Your task to perform on an android device: change the upload size in google photos Image 0: 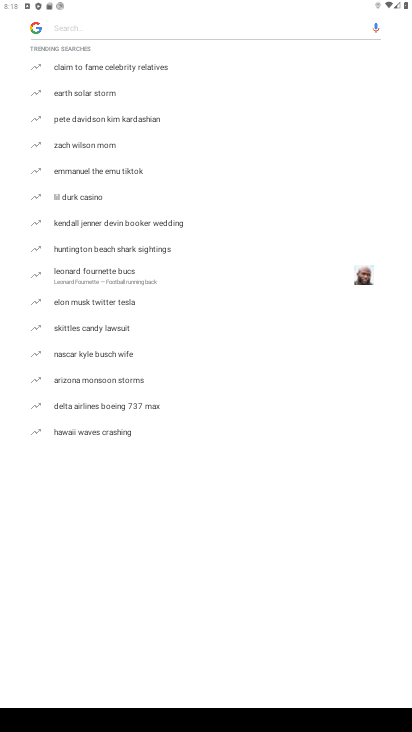
Step 0: press home button
Your task to perform on an android device: change the upload size in google photos Image 1: 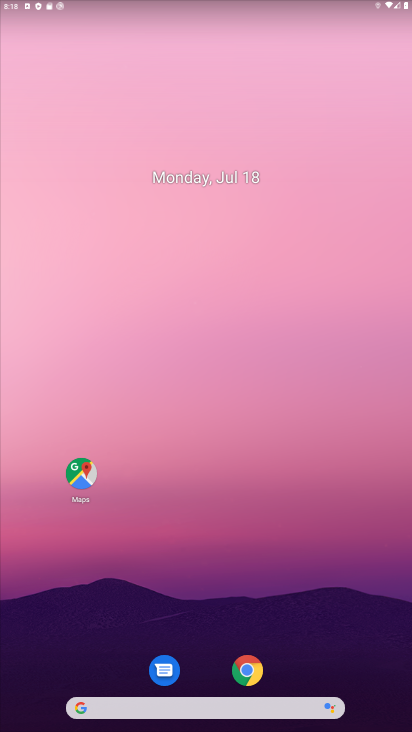
Step 1: drag from (197, 655) to (161, 57)
Your task to perform on an android device: change the upload size in google photos Image 2: 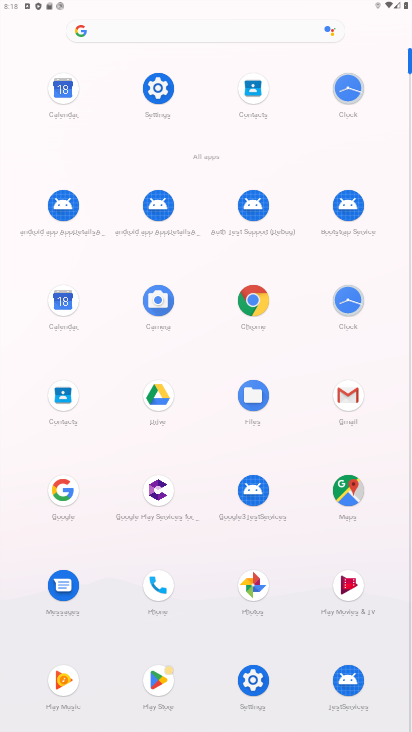
Step 2: click (260, 588)
Your task to perform on an android device: change the upload size in google photos Image 3: 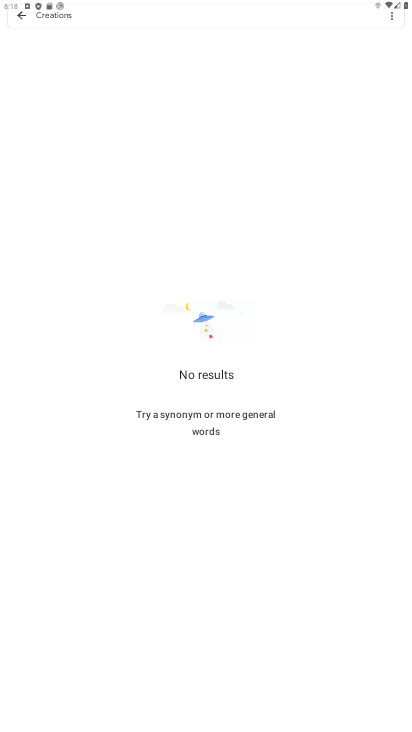
Step 3: click (11, 17)
Your task to perform on an android device: change the upload size in google photos Image 4: 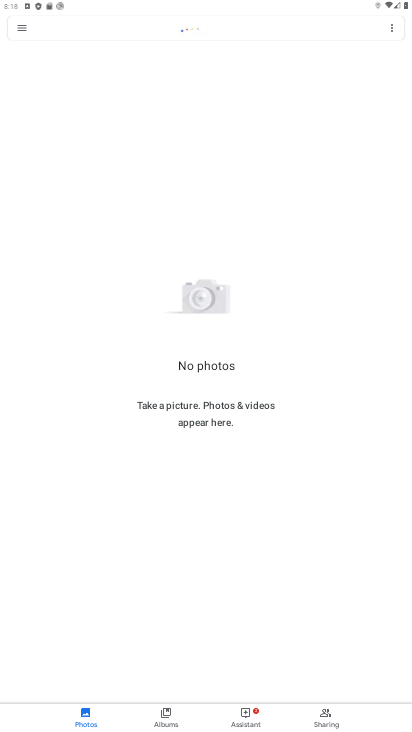
Step 4: click (20, 22)
Your task to perform on an android device: change the upload size in google photos Image 5: 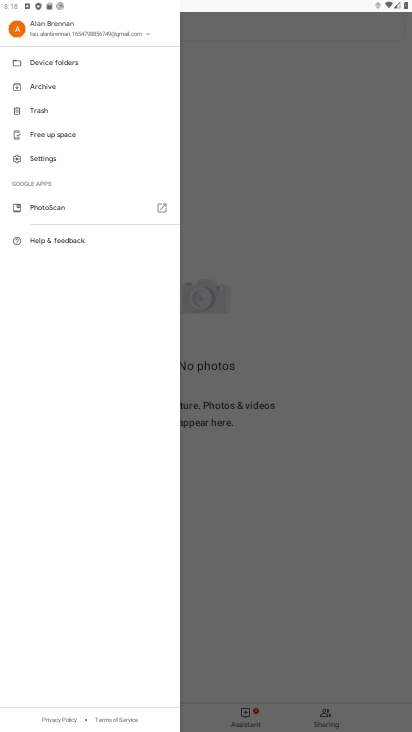
Step 5: click (57, 160)
Your task to perform on an android device: change the upload size in google photos Image 6: 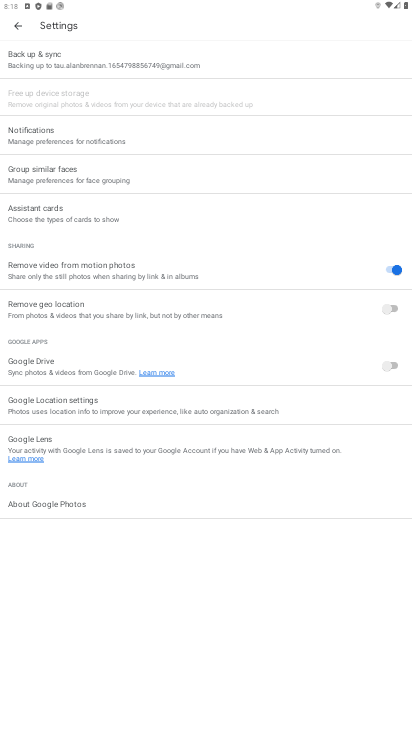
Step 6: click (57, 59)
Your task to perform on an android device: change the upload size in google photos Image 7: 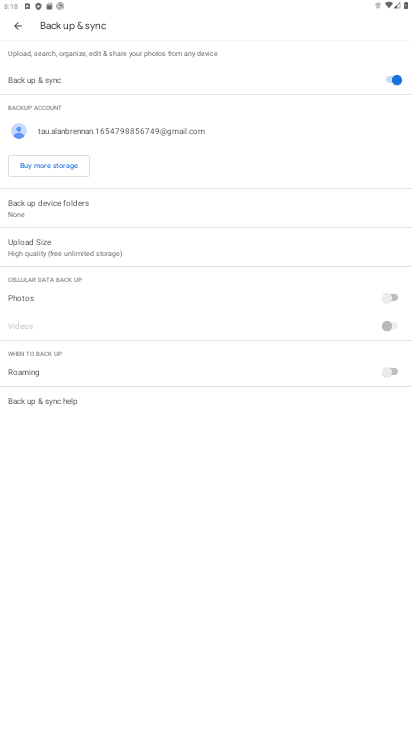
Step 7: click (49, 250)
Your task to perform on an android device: change the upload size in google photos Image 8: 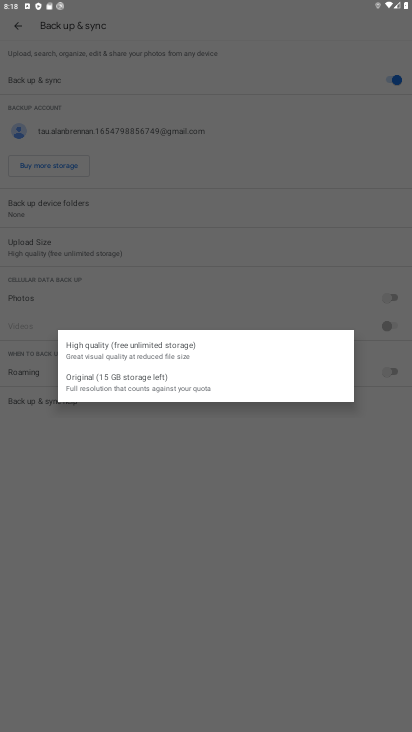
Step 8: click (146, 385)
Your task to perform on an android device: change the upload size in google photos Image 9: 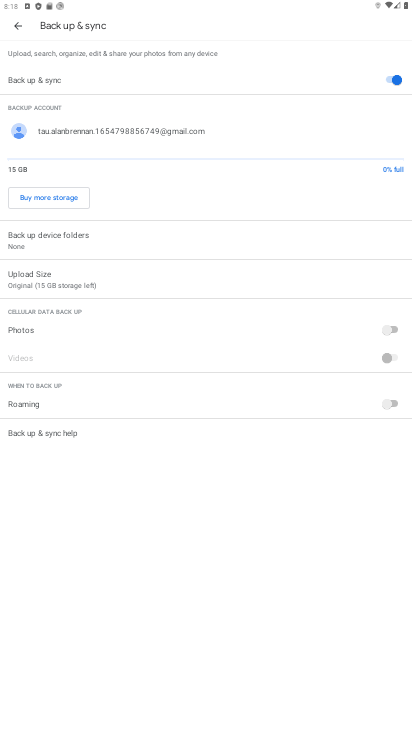
Step 9: task complete